Your task to perform on an android device: Search for Mexican restaurants on Maps Image 0: 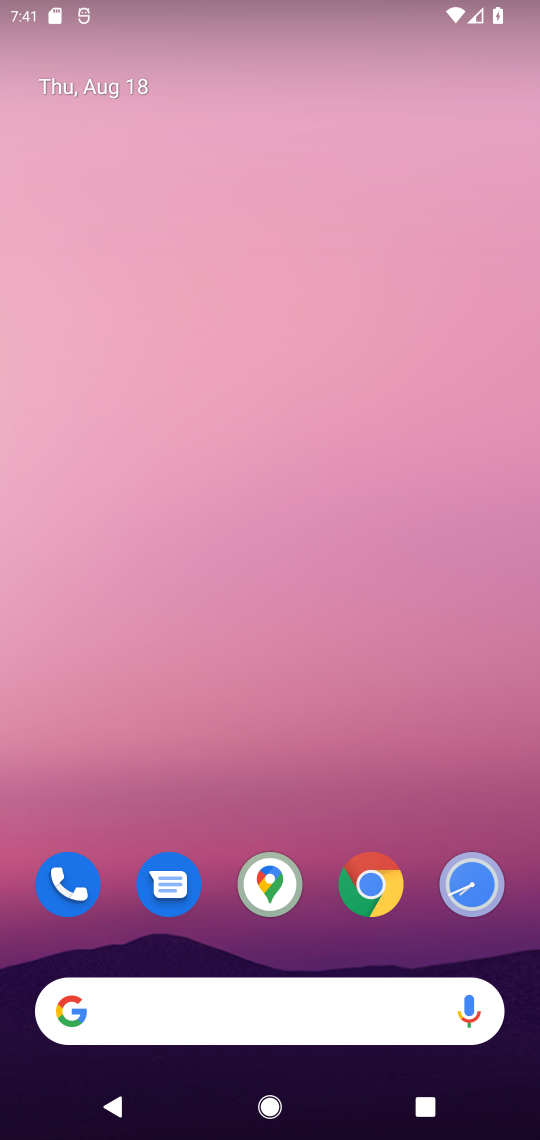
Step 0: click (267, 878)
Your task to perform on an android device: Search for Mexican restaurants on Maps Image 1: 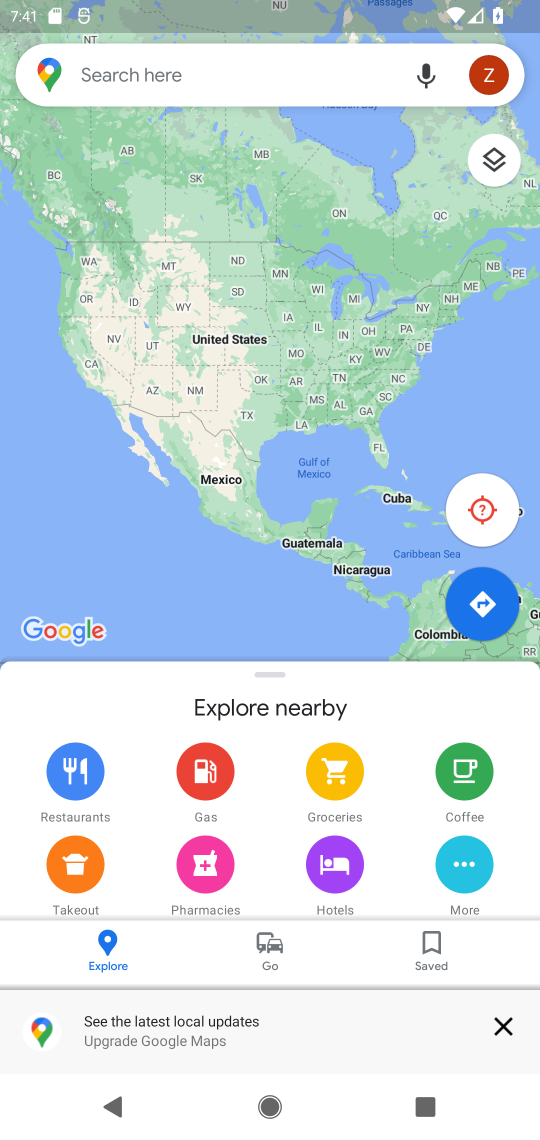
Step 1: click (345, 94)
Your task to perform on an android device: Search for Mexican restaurants on Maps Image 2: 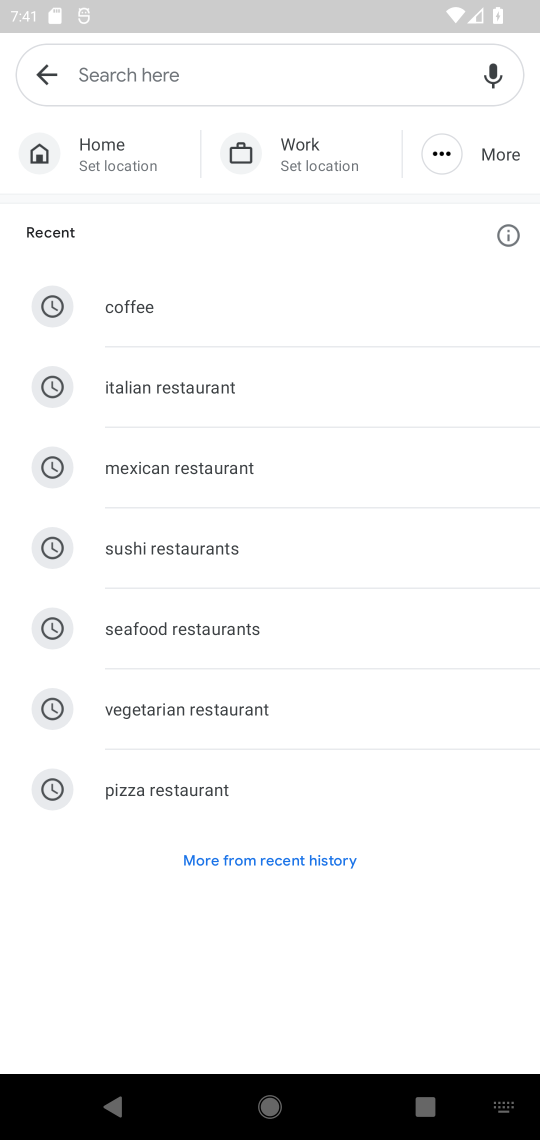
Step 2: click (248, 473)
Your task to perform on an android device: Search for Mexican restaurants on Maps Image 3: 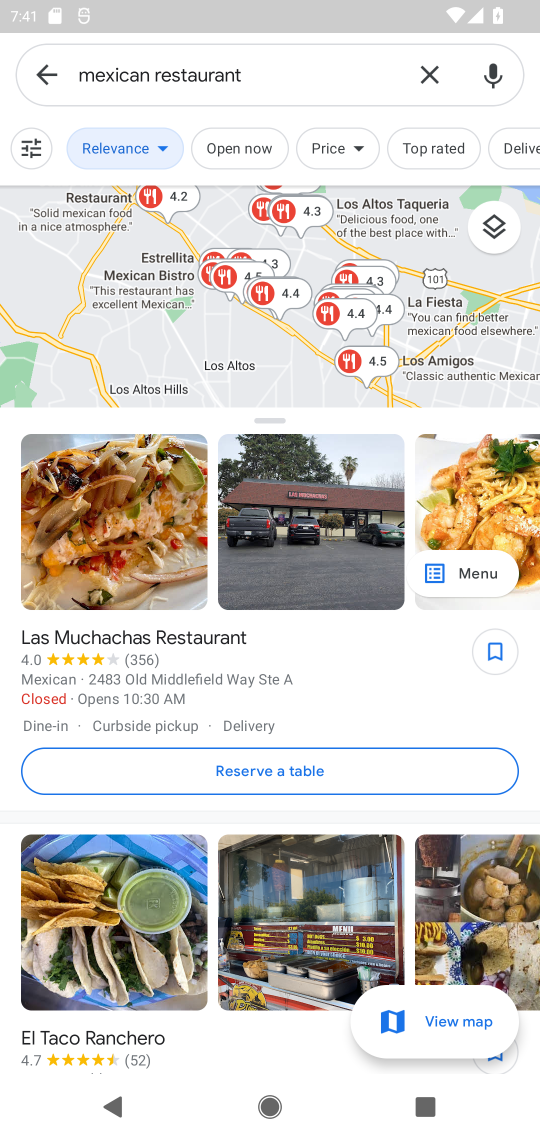
Step 3: task complete